Your task to perform on an android device: Do I have any events today? Image 0: 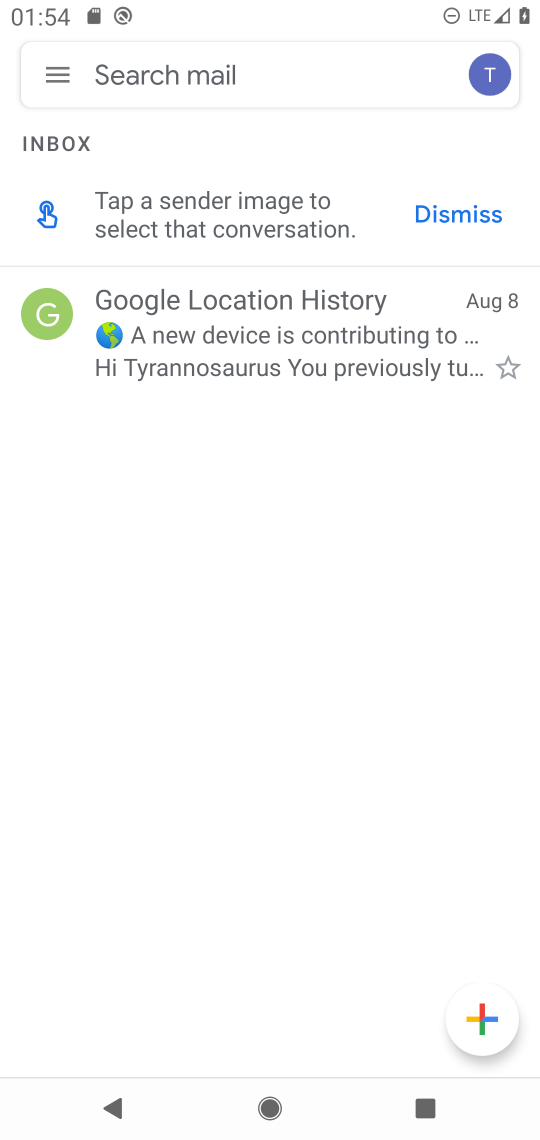
Step 0: press home button
Your task to perform on an android device: Do I have any events today? Image 1: 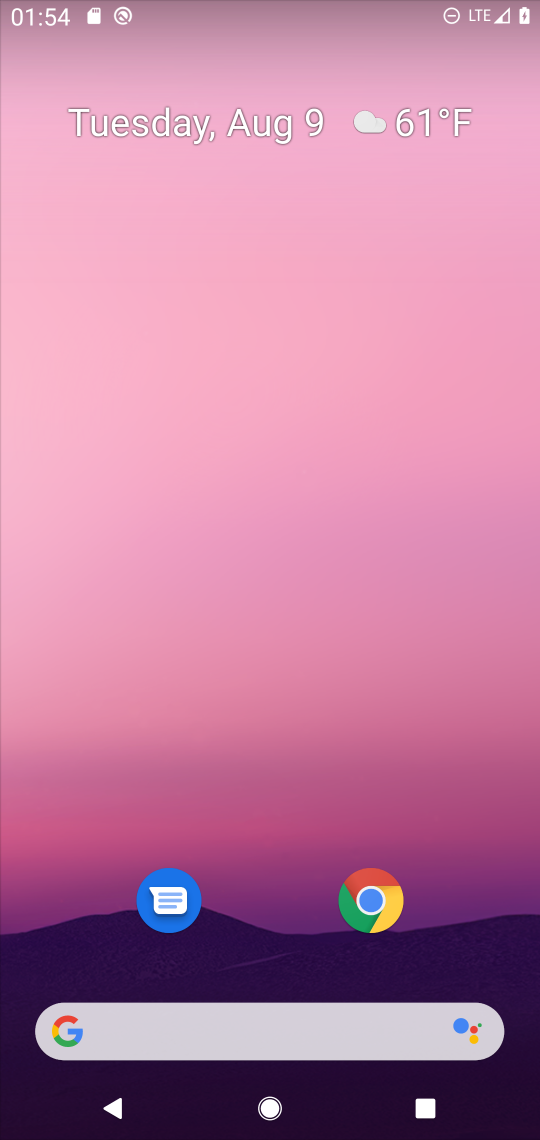
Step 1: drag from (274, 913) to (421, 62)
Your task to perform on an android device: Do I have any events today? Image 2: 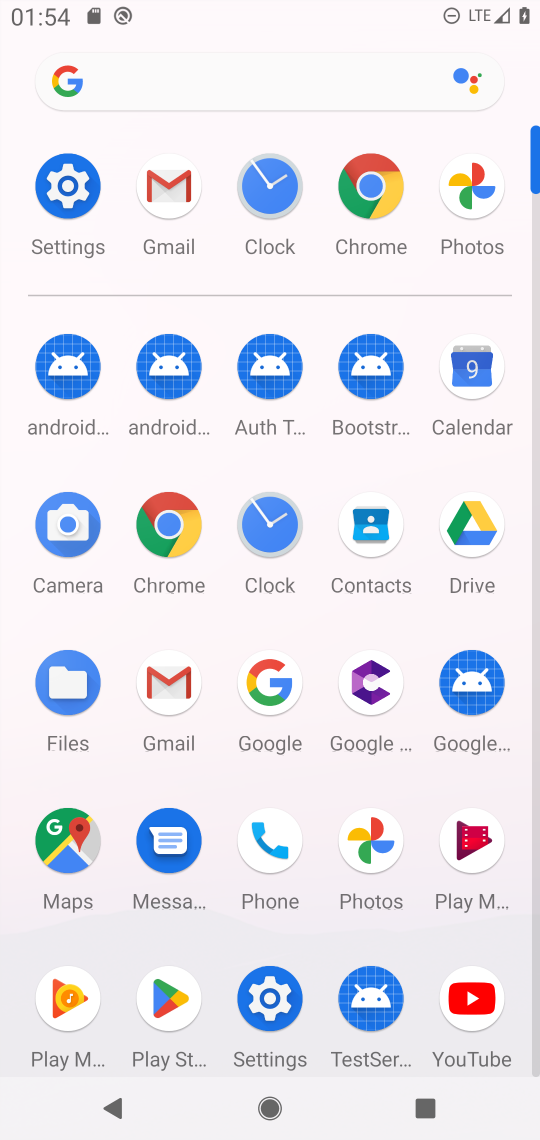
Step 2: click (471, 373)
Your task to perform on an android device: Do I have any events today? Image 3: 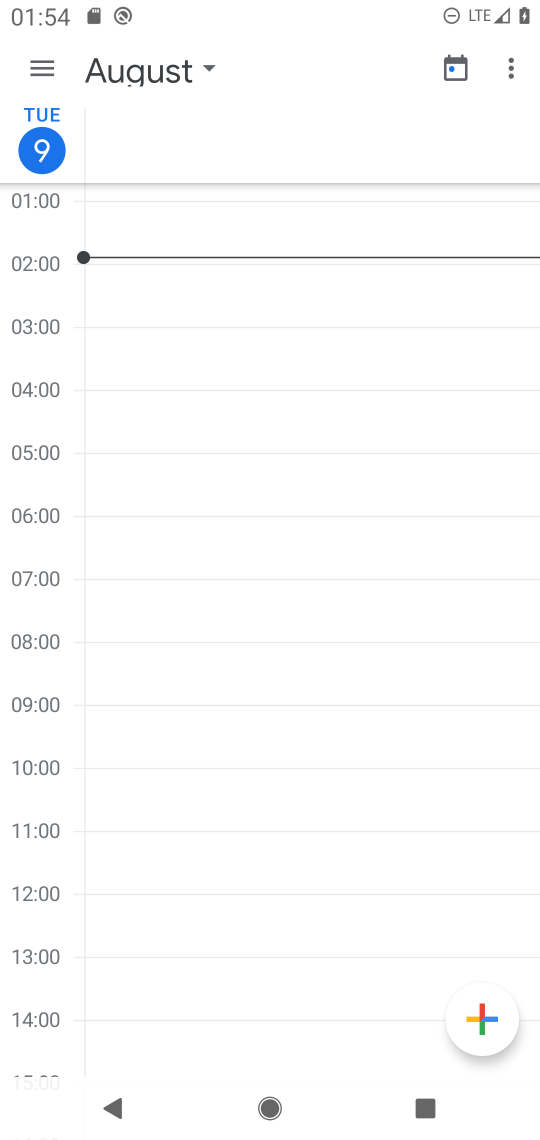
Step 3: click (39, 71)
Your task to perform on an android device: Do I have any events today? Image 4: 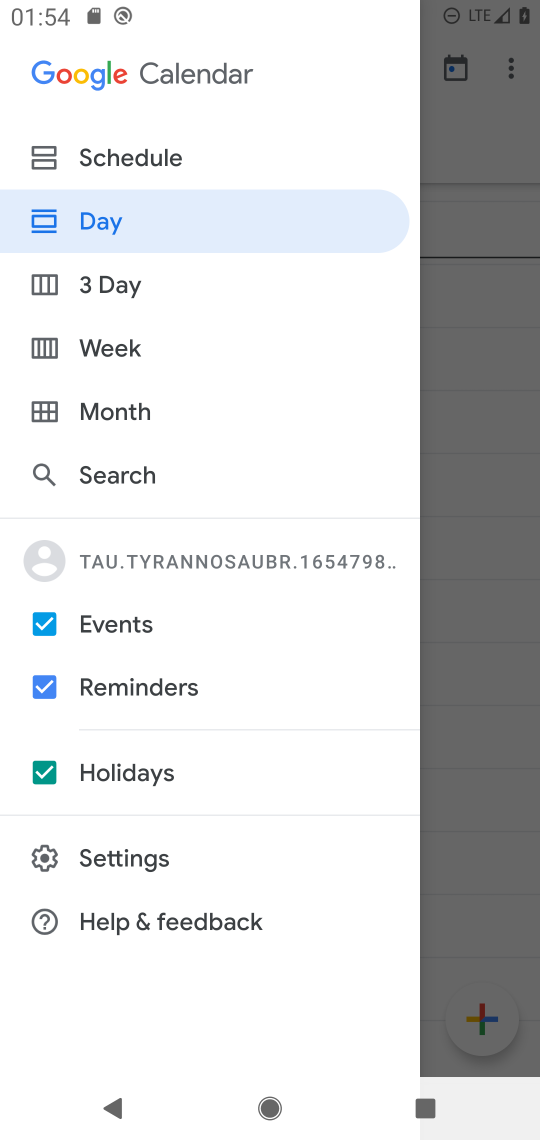
Step 4: click (184, 161)
Your task to perform on an android device: Do I have any events today? Image 5: 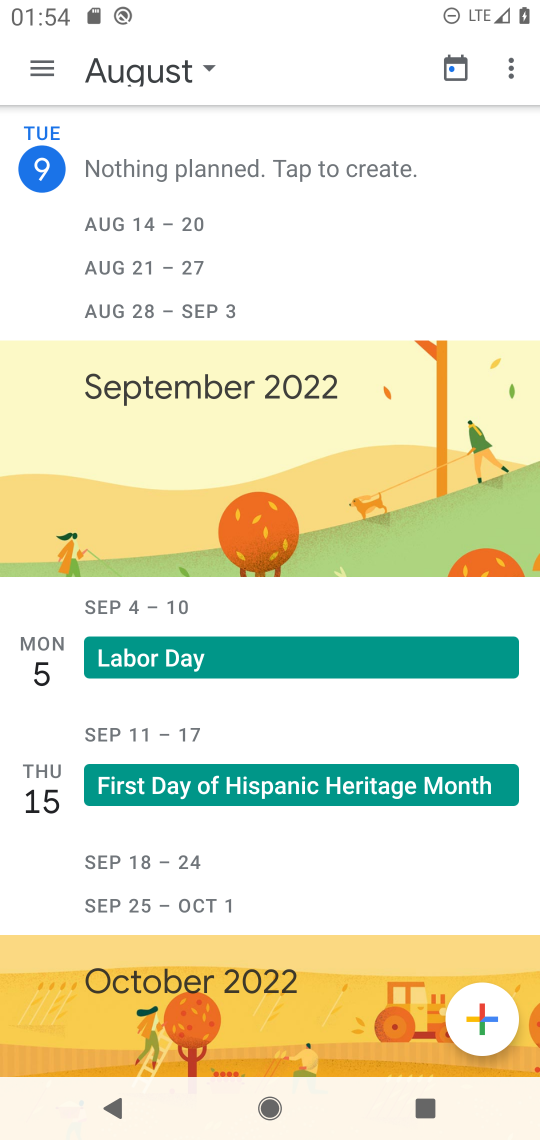
Step 5: task complete